Your task to perform on an android device: toggle translation in the chrome app Image 0: 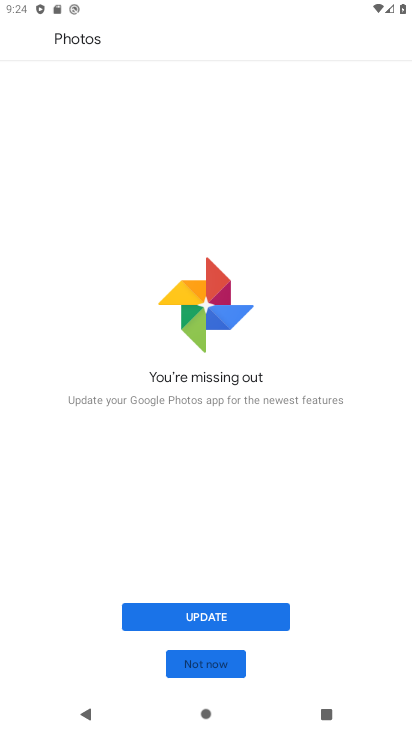
Step 0: press home button
Your task to perform on an android device: toggle translation in the chrome app Image 1: 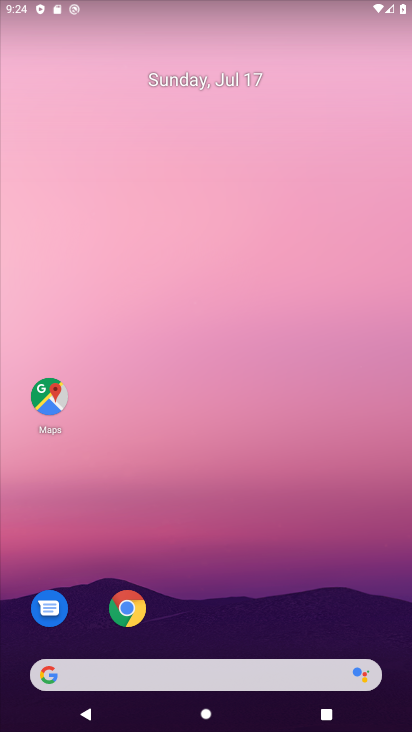
Step 1: drag from (226, 635) to (18, 697)
Your task to perform on an android device: toggle translation in the chrome app Image 2: 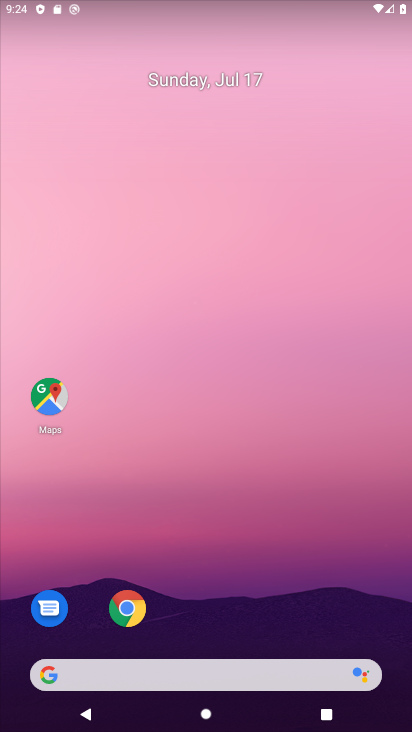
Step 2: drag from (275, 648) to (279, 51)
Your task to perform on an android device: toggle translation in the chrome app Image 3: 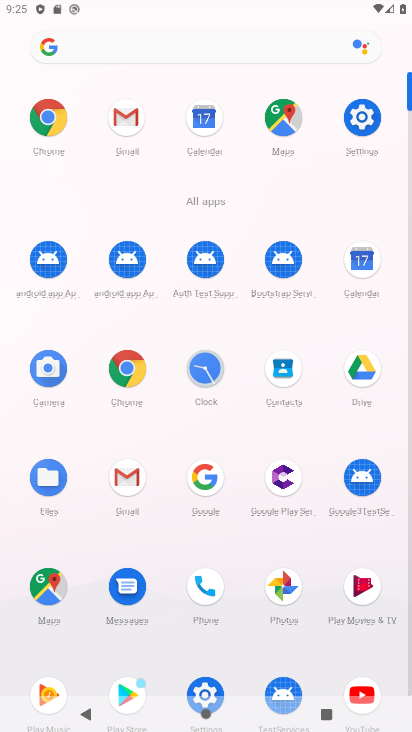
Step 3: click (46, 132)
Your task to perform on an android device: toggle translation in the chrome app Image 4: 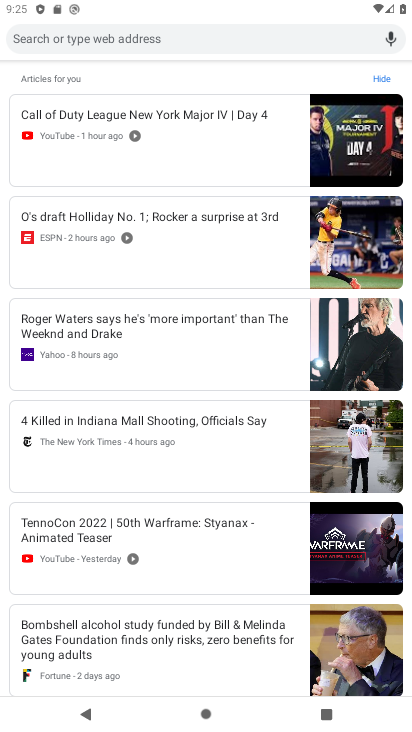
Step 4: drag from (297, 155) to (296, 709)
Your task to perform on an android device: toggle translation in the chrome app Image 5: 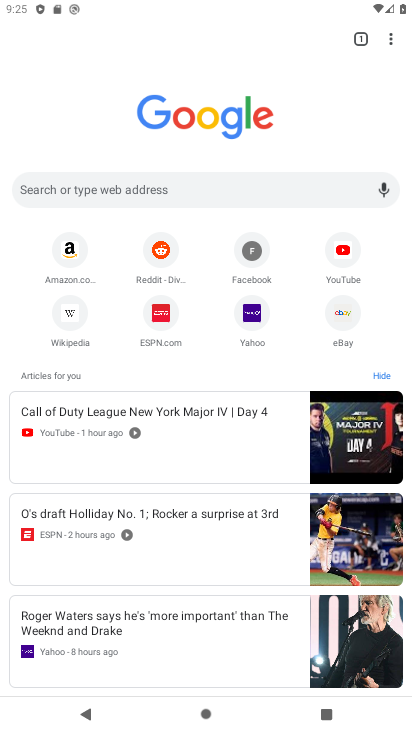
Step 5: drag from (393, 37) to (258, 339)
Your task to perform on an android device: toggle translation in the chrome app Image 6: 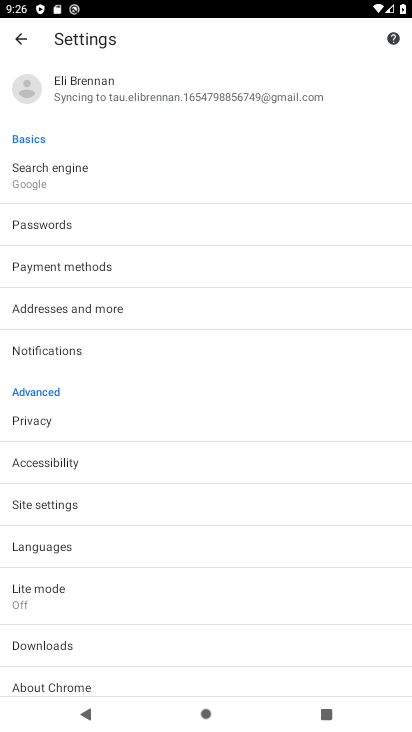
Step 6: click (86, 546)
Your task to perform on an android device: toggle translation in the chrome app Image 7: 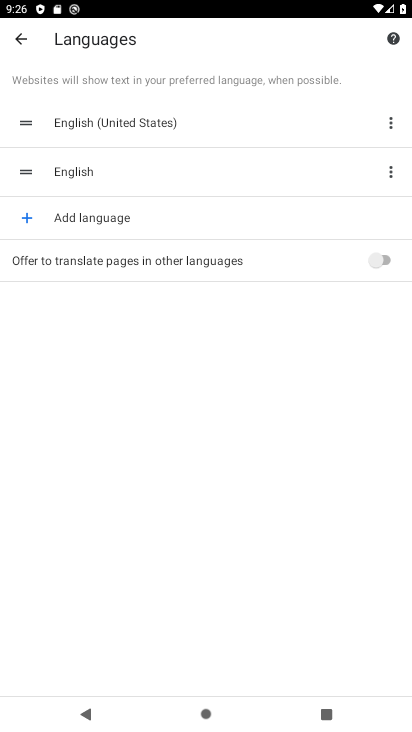
Step 7: click (388, 260)
Your task to perform on an android device: toggle translation in the chrome app Image 8: 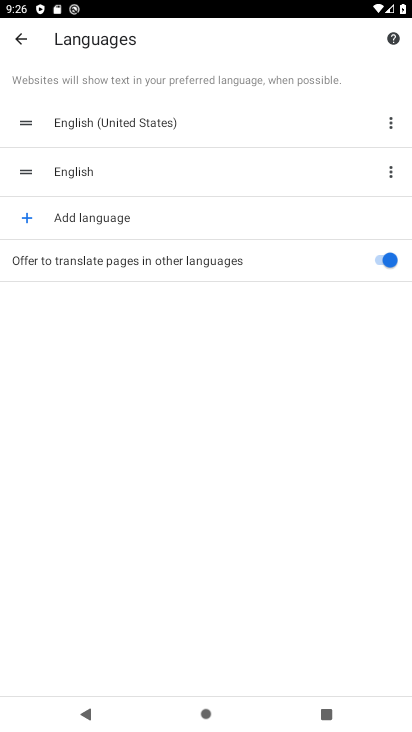
Step 8: task complete